Your task to perform on an android device: change the clock display to show seconds Image 0: 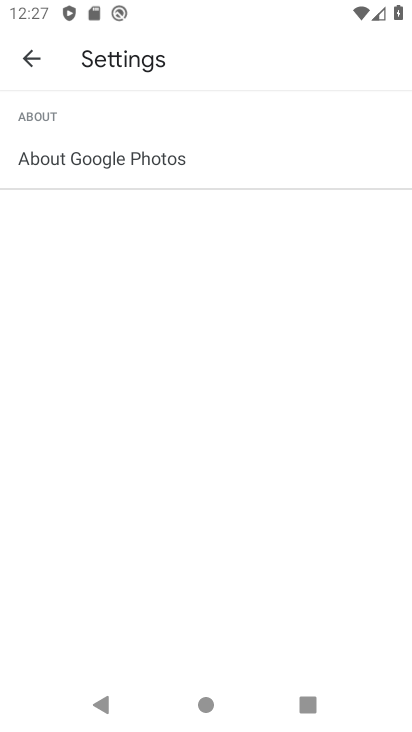
Step 0: press home button
Your task to perform on an android device: change the clock display to show seconds Image 1: 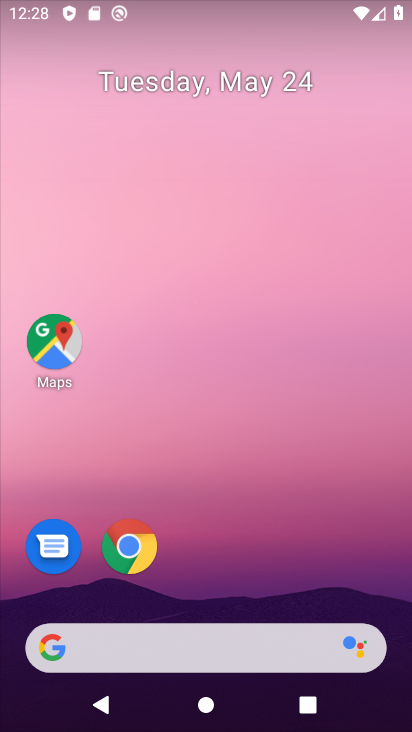
Step 1: drag from (177, 648) to (263, 123)
Your task to perform on an android device: change the clock display to show seconds Image 2: 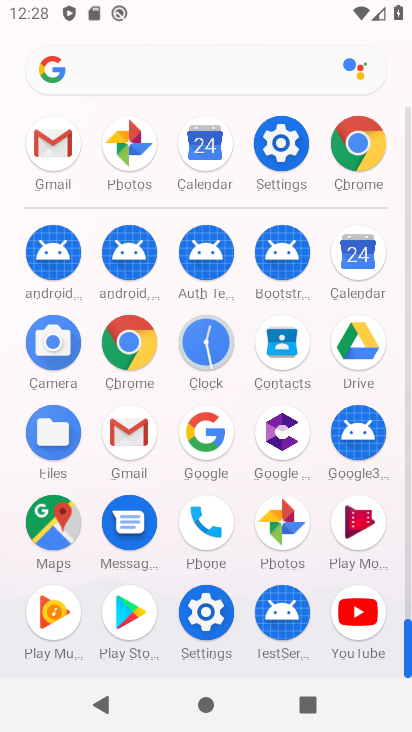
Step 2: click (190, 348)
Your task to perform on an android device: change the clock display to show seconds Image 3: 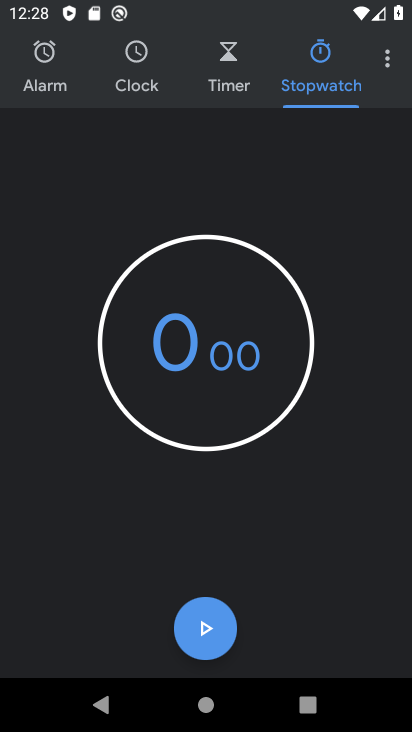
Step 3: click (382, 53)
Your task to perform on an android device: change the clock display to show seconds Image 4: 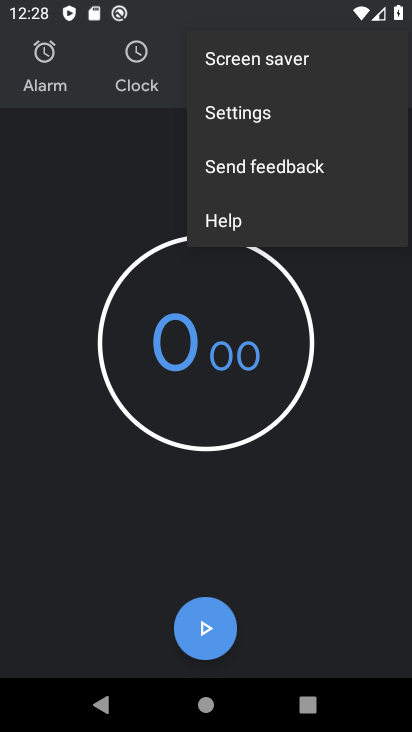
Step 4: click (235, 122)
Your task to perform on an android device: change the clock display to show seconds Image 5: 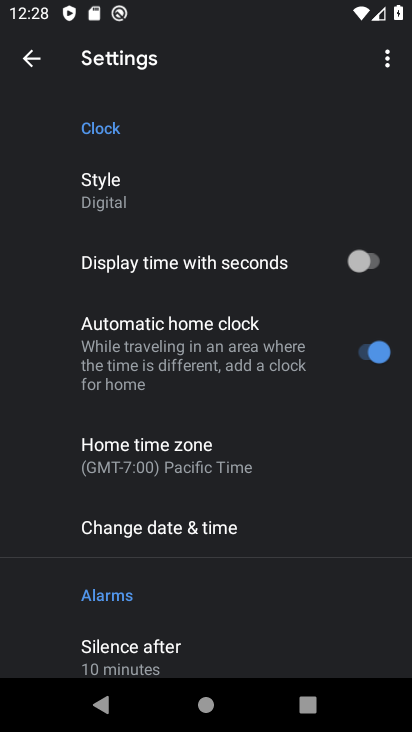
Step 5: click (375, 268)
Your task to perform on an android device: change the clock display to show seconds Image 6: 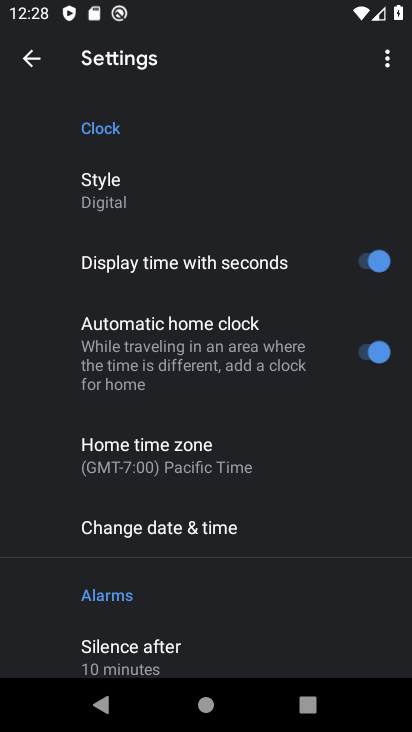
Step 6: task complete